Your task to perform on an android device: Open Maps and search for coffee Image 0: 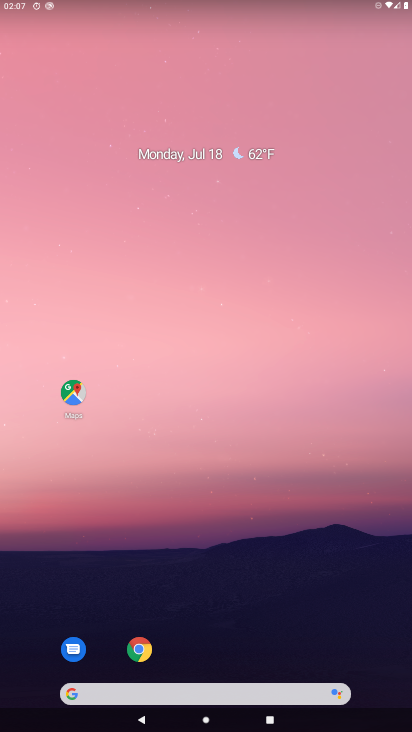
Step 0: click (42, 388)
Your task to perform on an android device: Open Maps and search for coffee Image 1: 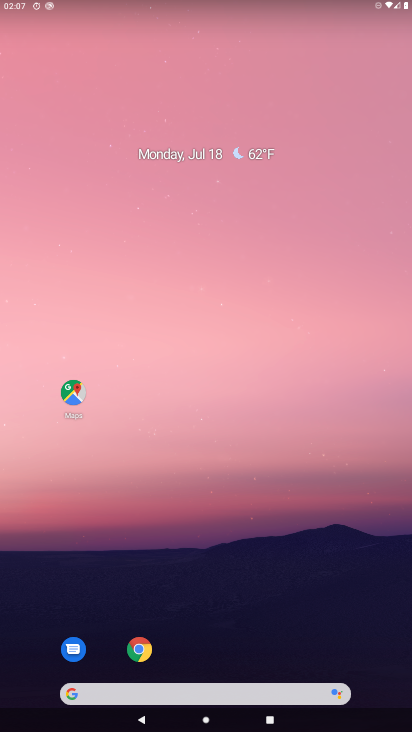
Step 1: click (67, 385)
Your task to perform on an android device: Open Maps and search for coffee Image 2: 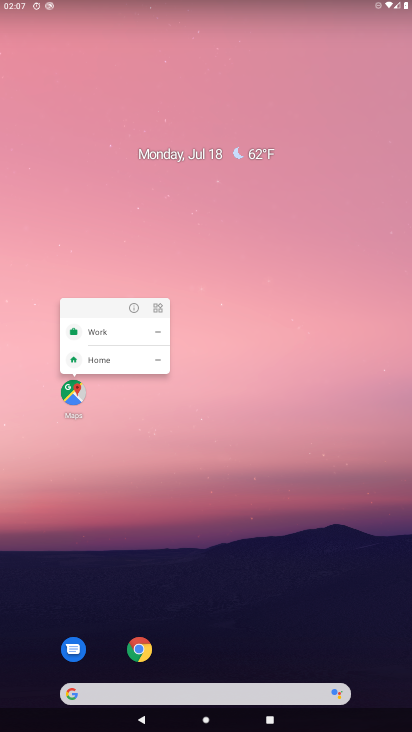
Step 2: click (67, 385)
Your task to perform on an android device: Open Maps and search for coffee Image 3: 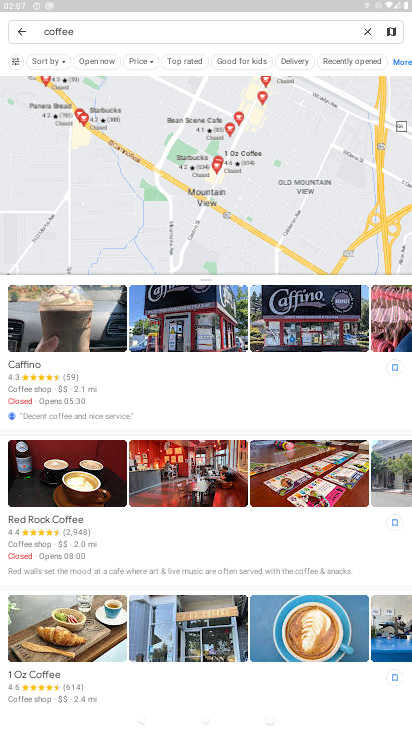
Step 3: task complete